Your task to perform on an android device: turn on notifications settings in the gmail app Image 0: 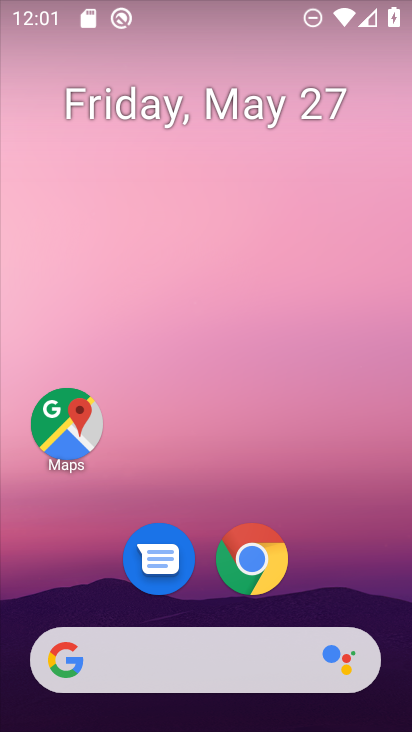
Step 0: drag from (309, 577) to (294, 289)
Your task to perform on an android device: turn on notifications settings in the gmail app Image 1: 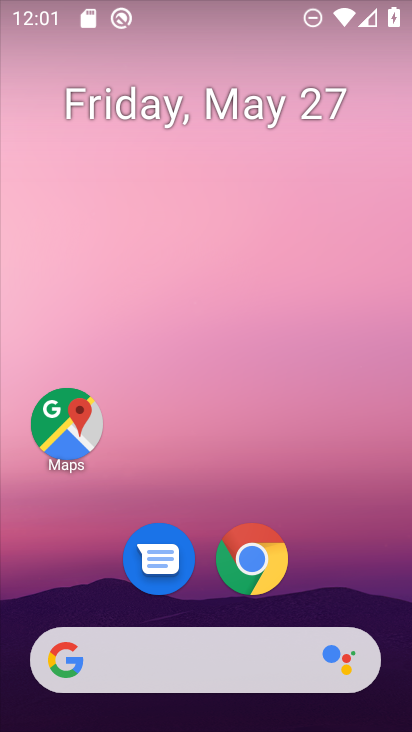
Step 1: drag from (301, 584) to (310, 97)
Your task to perform on an android device: turn on notifications settings in the gmail app Image 2: 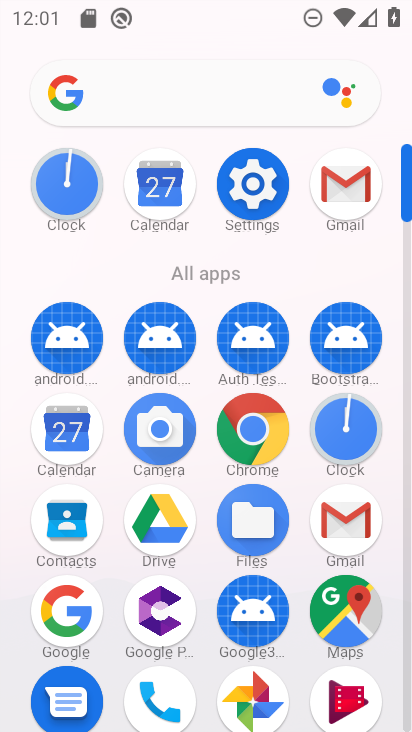
Step 2: click (358, 198)
Your task to perform on an android device: turn on notifications settings in the gmail app Image 3: 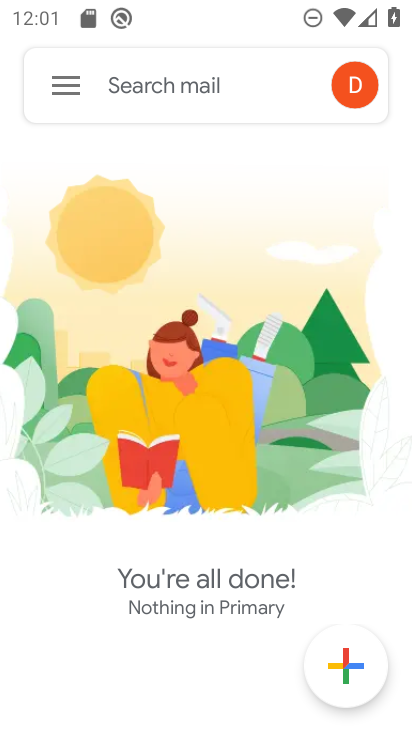
Step 3: click (76, 73)
Your task to perform on an android device: turn on notifications settings in the gmail app Image 4: 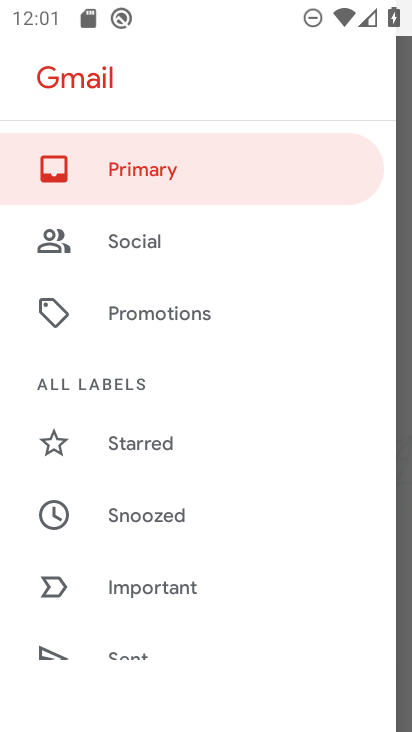
Step 4: drag from (197, 521) to (284, 22)
Your task to perform on an android device: turn on notifications settings in the gmail app Image 5: 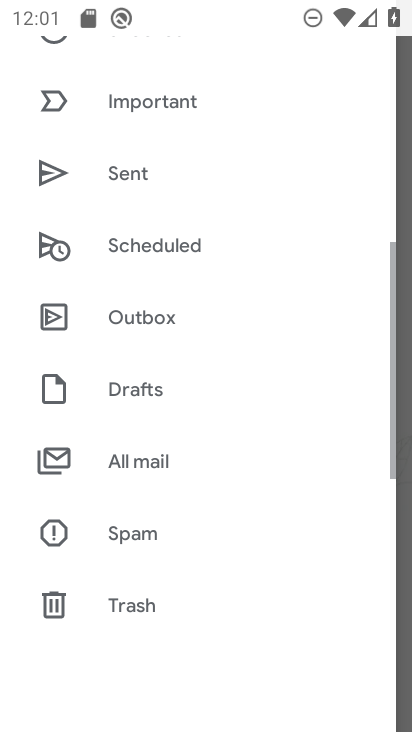
Step 5: drag from (216, 585) to (281, 141)
Your task to perform on an android device: turn on notifications settings in the gmail app Image 6: 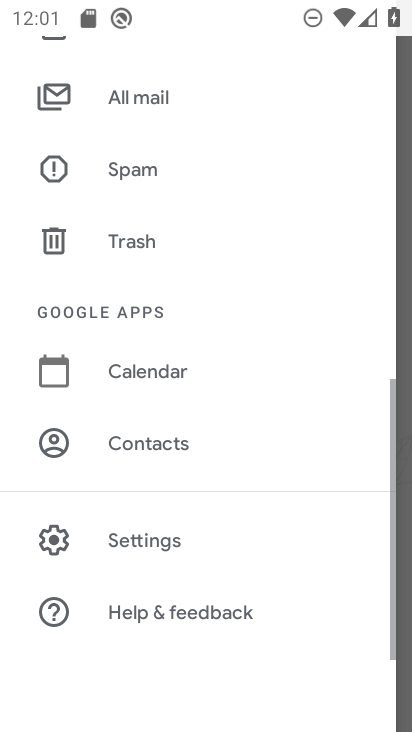
Step 6: click (154, 537)
Your task to perform on an android device: turn on notifications settings in the gmail app Image 7: 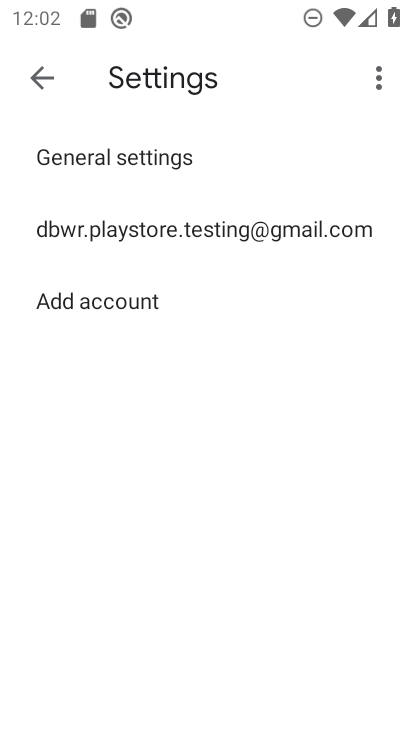
Step 7: click (261, 160)
Your task to perform on an android device: turn on notifications settings in the gmail app Image 8: 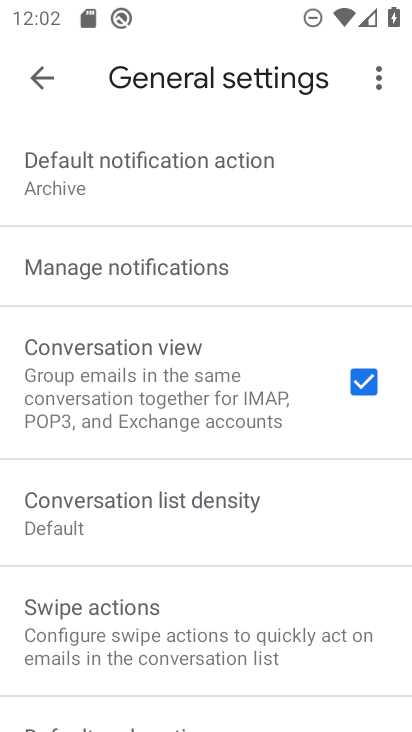
Step 8: click (160, 268)
Your task to perform on an android device: turn on notifications settings in the gmail app Image 9: 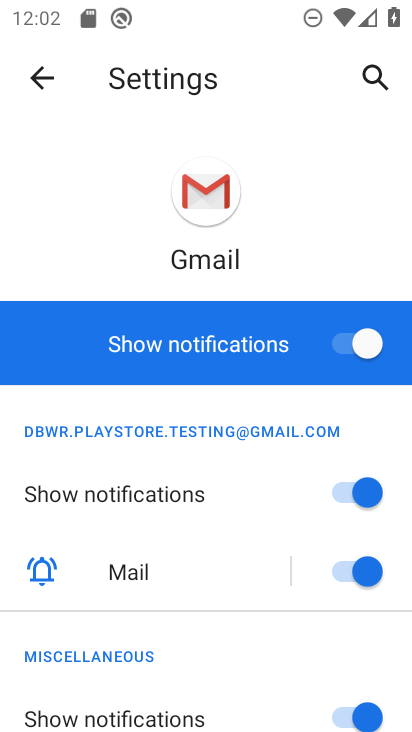
Step 9: task complete